Your task to perform on an android device: Go to Wikipedia Image 0: 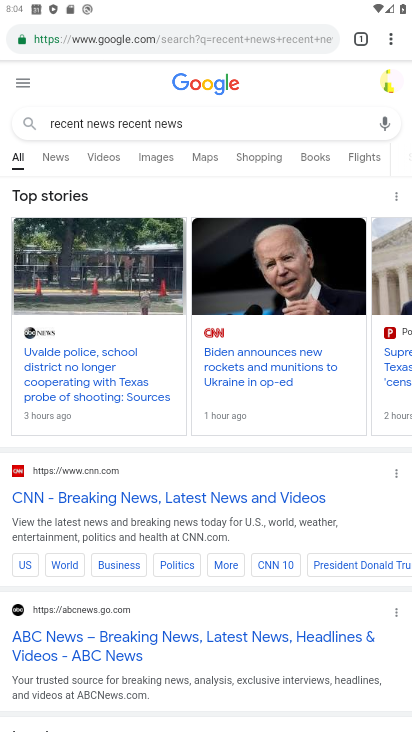
Step 0: click (224, 36)
Your task to perform on an android device: Go to Wikipedia Image 1: 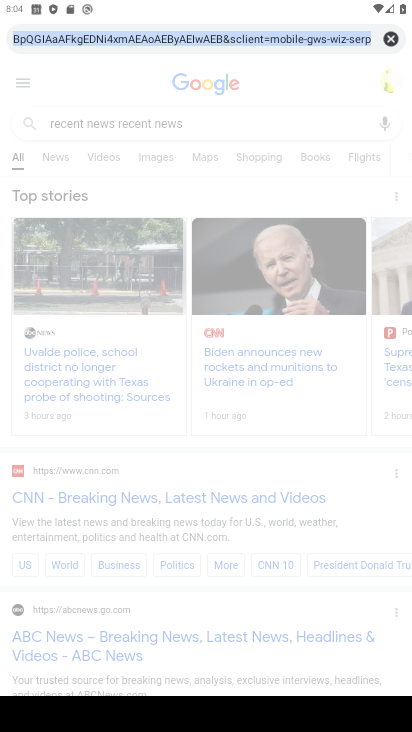
Step 1: type "wikipedia"
Your task to perform on an android device: Go to Wikipedia Image 2: 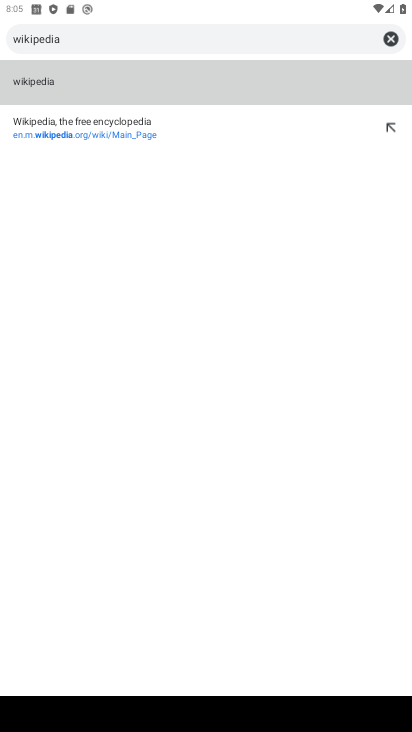
Step 2: click (140, 97)
Your task to perform on an android device: Go to Wikipedia Image 3: 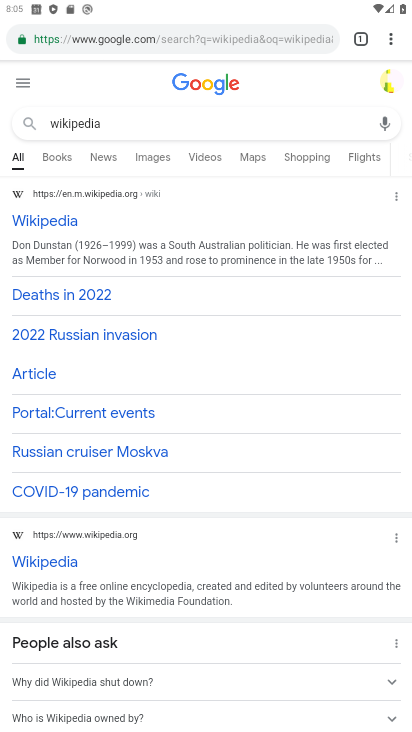
Step 3: task complete